Your task to perform on an android device: show emergency info Image 0: 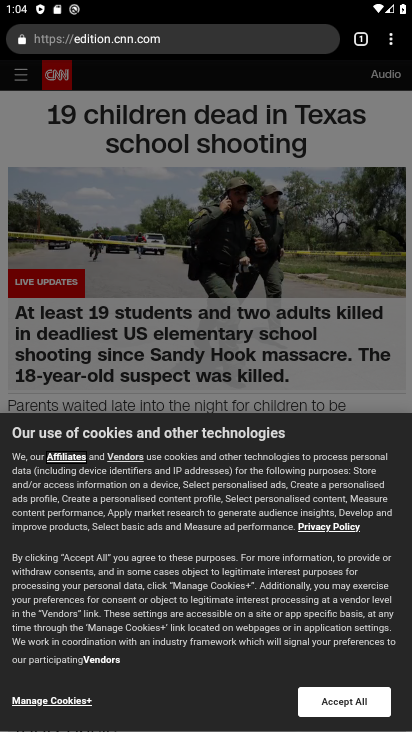
Step 0: press home button
Your task to perform on an android device: show emergency info Image 1: 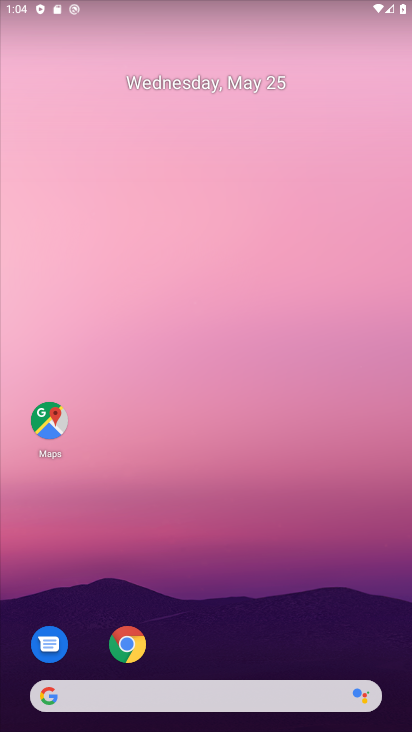
Step 1: drag from (205, 644) to (184, 124)
Your task to perform on an android device: show emergency info Image 2: 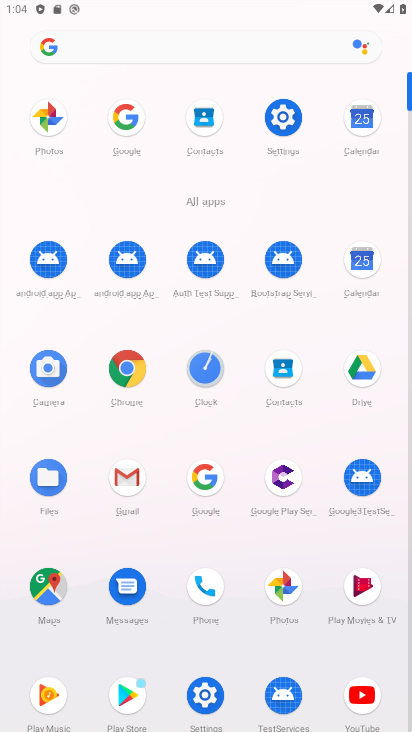
Step 2: click (283, 125)
Your task to perform on an android device: show emergency info Image 3: 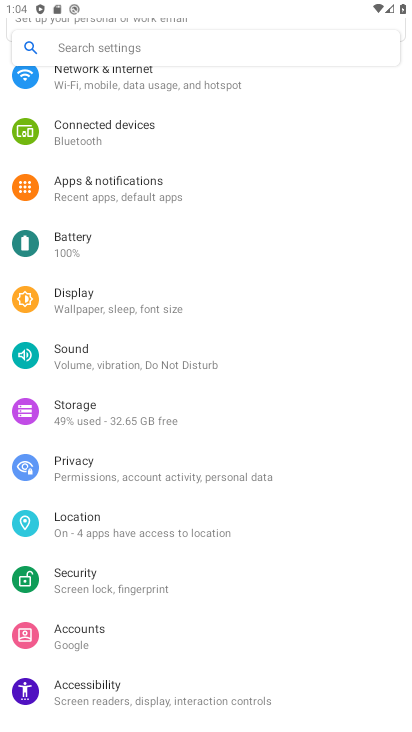
Step 3: drag from (176, 633) to (136, 102)
Your task to perform on an android device: show emergency info Image 4: 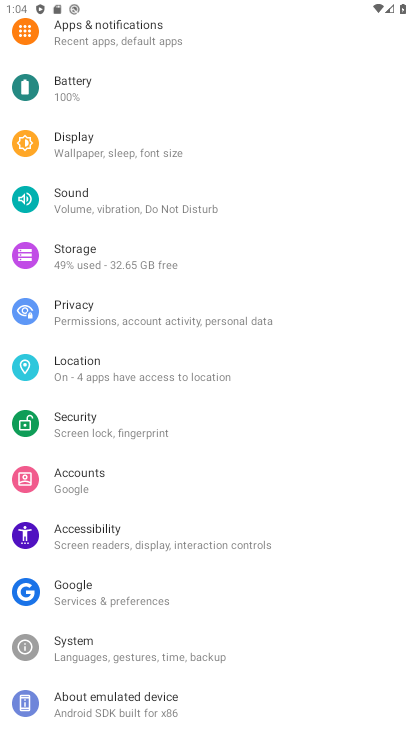
Step 4: click (88, 713)
Your task to perform on an android device: show emergency info Image 5: 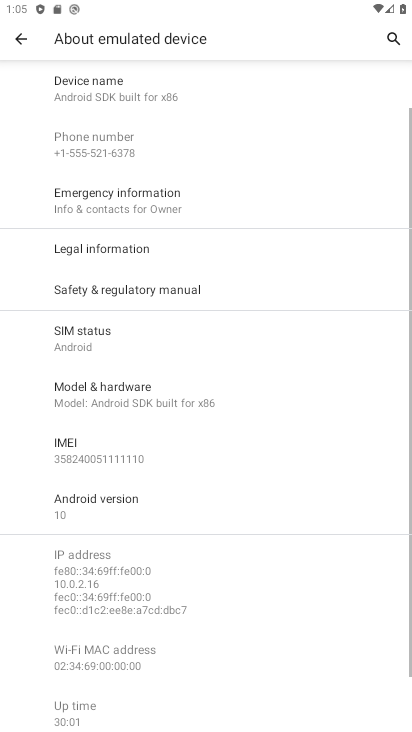
Step 5: click (91, 191)
Your task to perform on an android device: show emergency info Image 6: 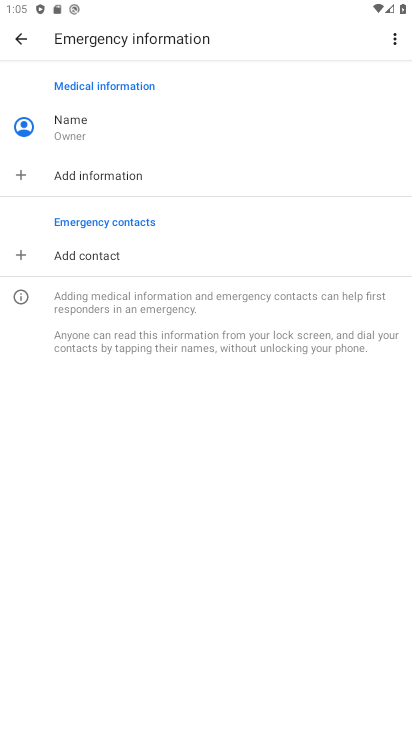
Step 6: task complete